Your task to perform on an android device: see creations saved in the google photos Image 0: 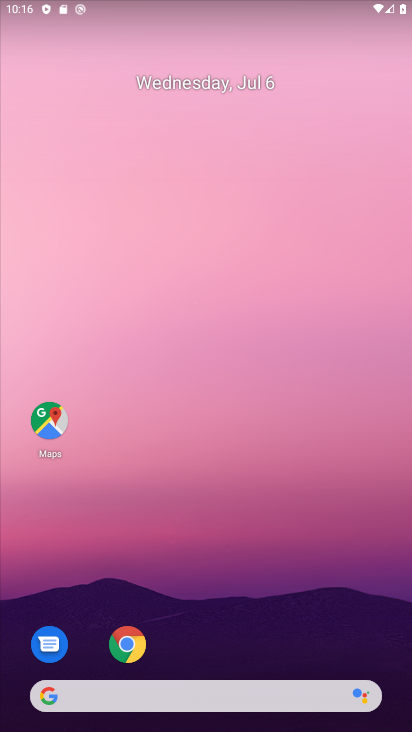
Step 0: drag from (166, 639) to (272, 166)
Your task to perform on an android device: see creations saved in the google photos Image 1: 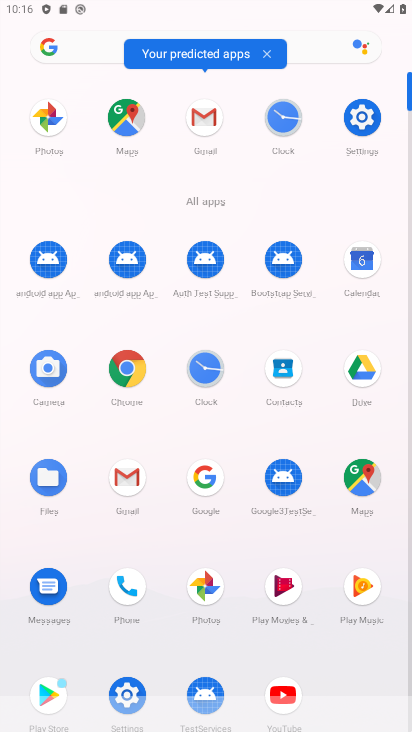
Step 1: click (223, 595)
Your task to perform on an android device: see creations saved in the google photos Image 2: 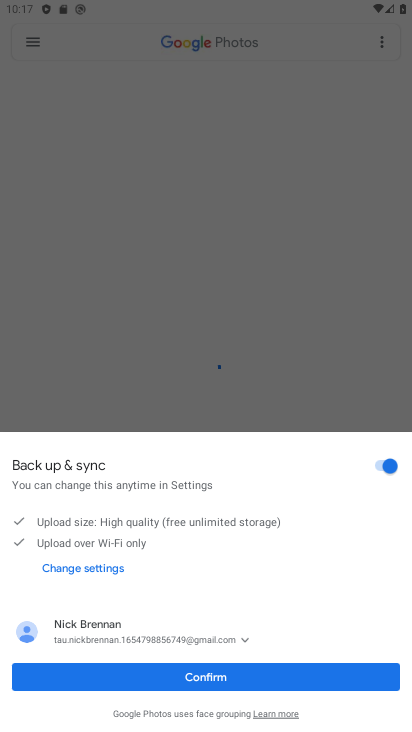
Step 2: click (236, 680)
Your task to perform on an android device: see creations saved in the google photos Image 3: 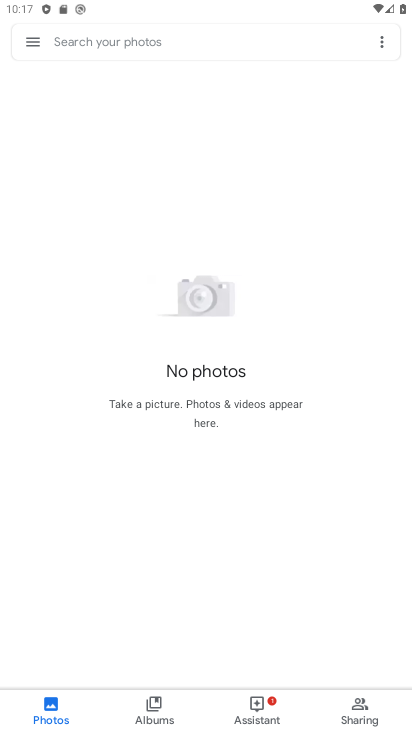
Step 3: click (178, 42)
Your task to perform on an android device: see creations saved in the google photos Image 4: 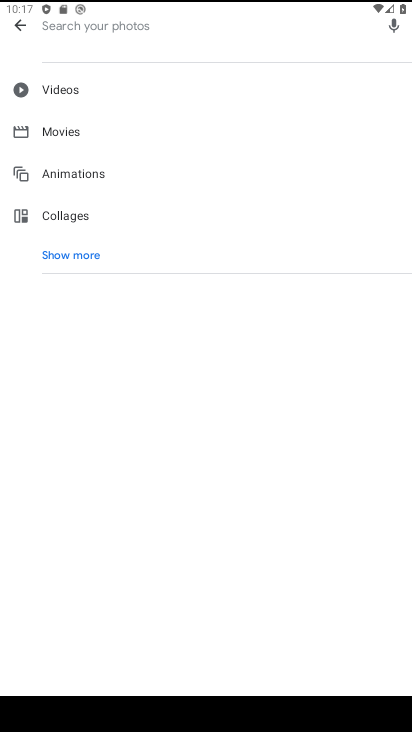
Step 4: click (65, 259)
Your task to perform on an android device: see creations saved in the google photos Image 5: 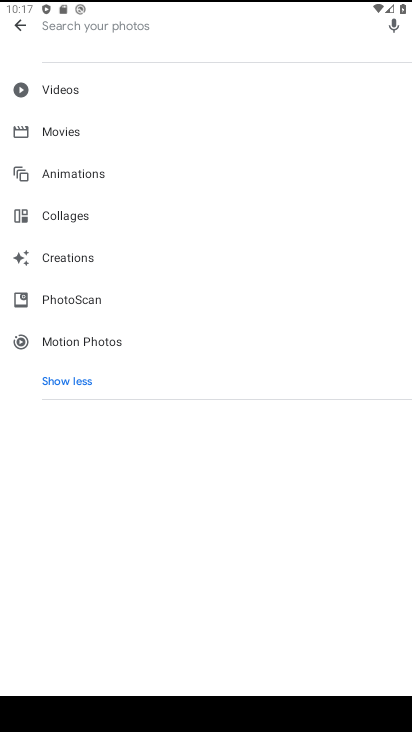
Step 5: click (76, 260)
Your task to perform on an android device: see creations saved in the google photos Image 6: 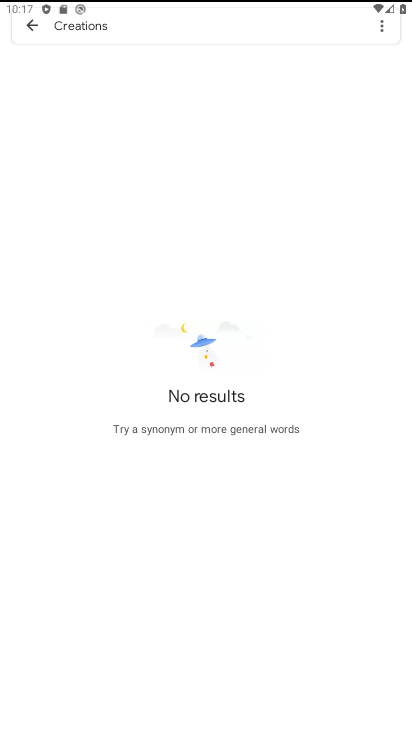
Step 6: task complete